Your task to perform on an android device: Go to eBay Image 0: 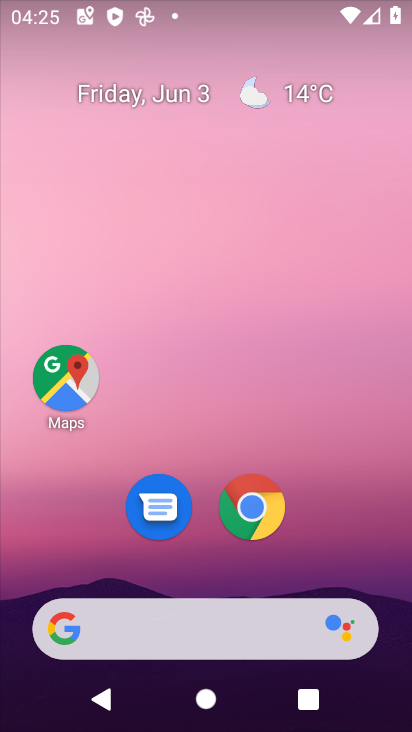
Step 0: type "eBay"
Your task to perform on an android device: Go to eBay Image 1: 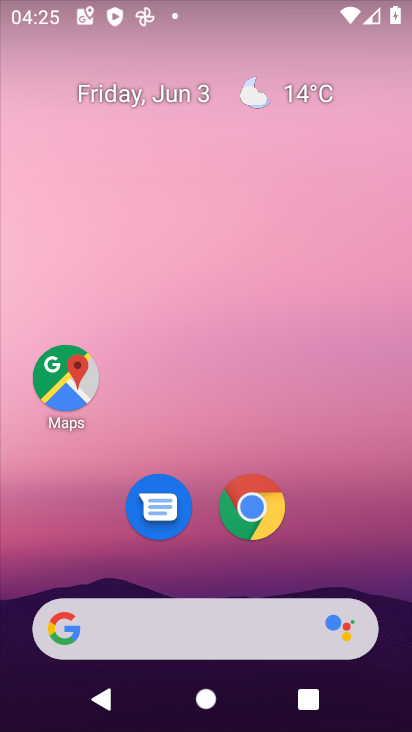
Step 1: click (212, 629)
Your task to perform on an android device: Go to eBay Image 2: 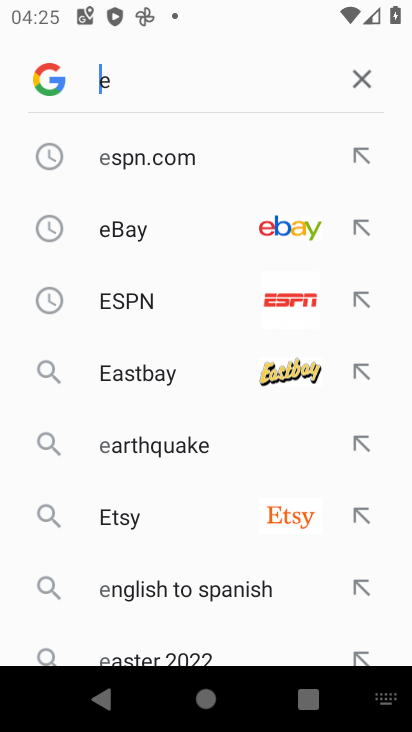
Step 2: click (114, 234)
Your task to perform on an android device: Go to eBay Image 3: 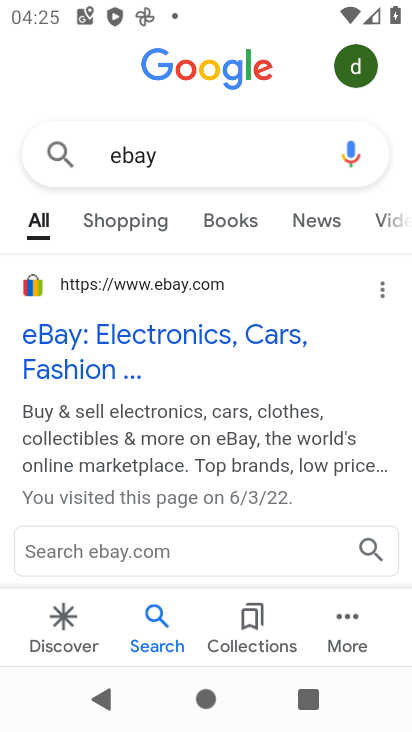
Step 3: click (119, 340)
Your task to perform on an android device: Go to eBay Image 4: 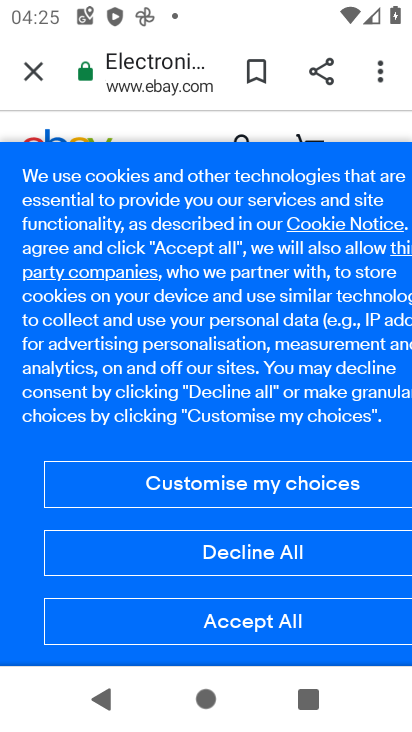
Step 4: task complete